Your task to perform on an android device: find snoozed emails in the gmail app Image 0: 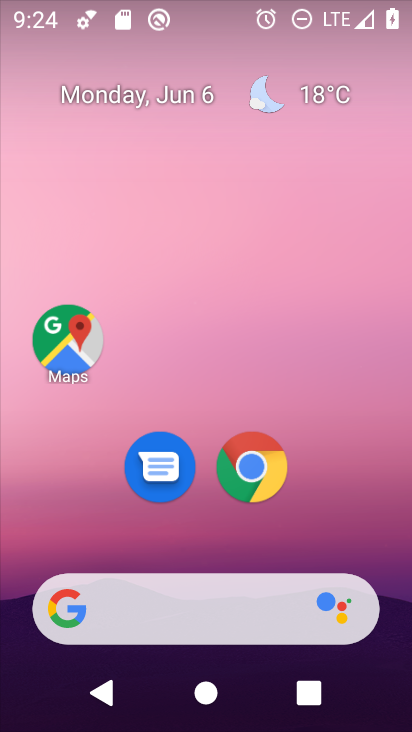
Step 0: drag from (347, 510) to (408, 116)
Your task to perform on an android device: find snoozed emails in the gmail app Image 1: 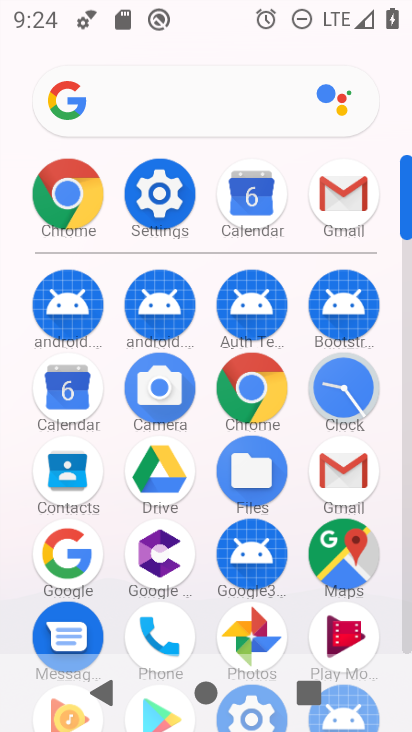
Step 1: click (359, 473)
Your task to perform on an android device: find snoozed emails in the gmail app Image 2: 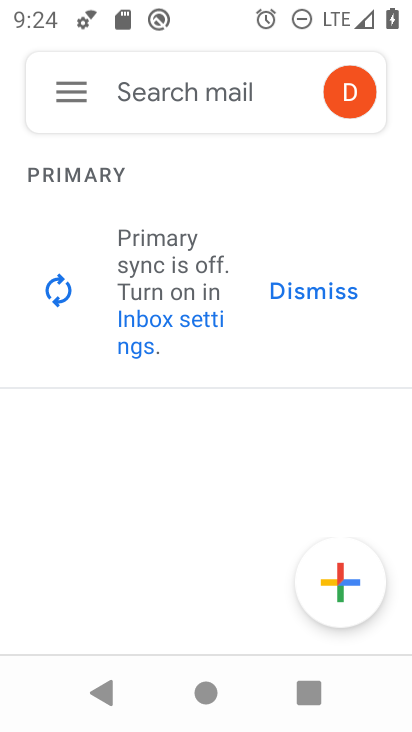
Step 2: click (68, 95)
Your task to perform on an android device: find snoozed emails in the gmail app Image 3: 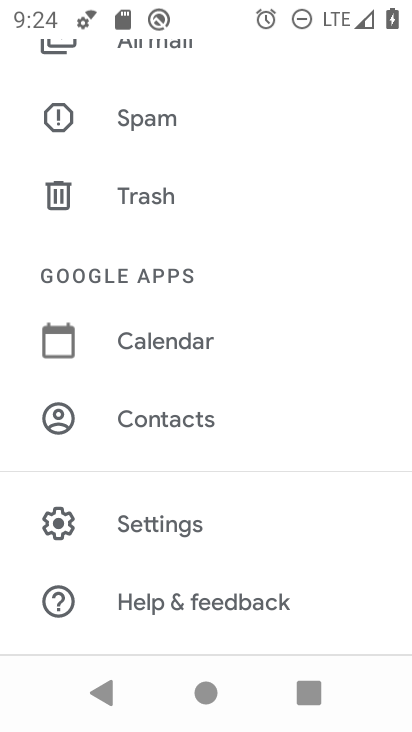
Step 3: drag from (291, 255) to (292, 346)
Your task to perform on an android device: find snoozed emails in the gmail app Image 4: 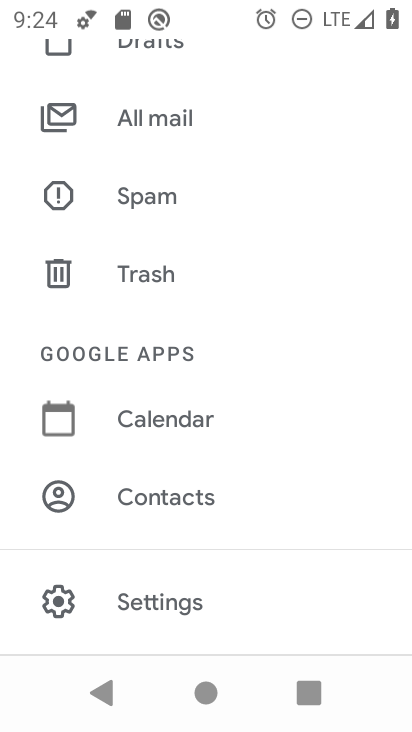
Step 4: drag from (292, 209) to (310, 326)
Your task to perform on an android device: find snoozed emails in the gmail app Image 5: 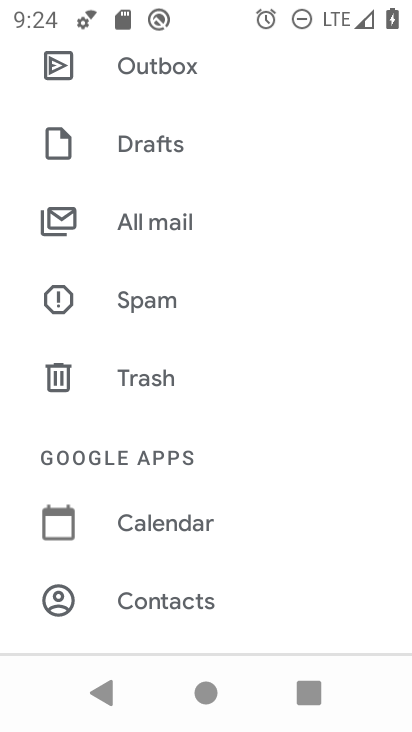
Step 5: drag from (292, 172) to (314, 346)
Your task to perform on an android device: find snoozed emails in the gmail app Image 6: 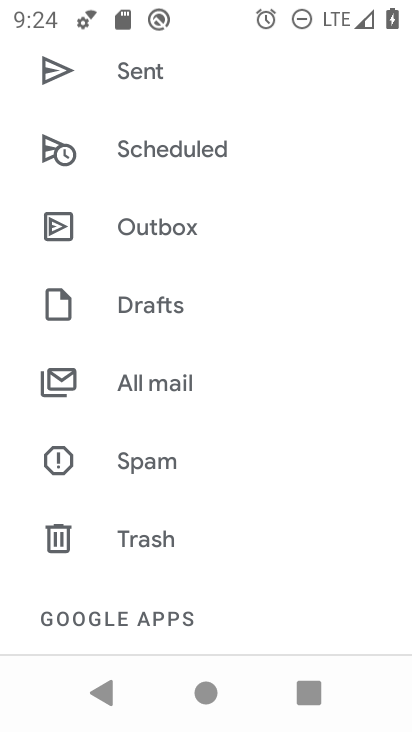
Step 6: drag from (266, 210) to (280, 337)
Your task to perform on an android device: find snoozed emails in the gmail app Image 7: 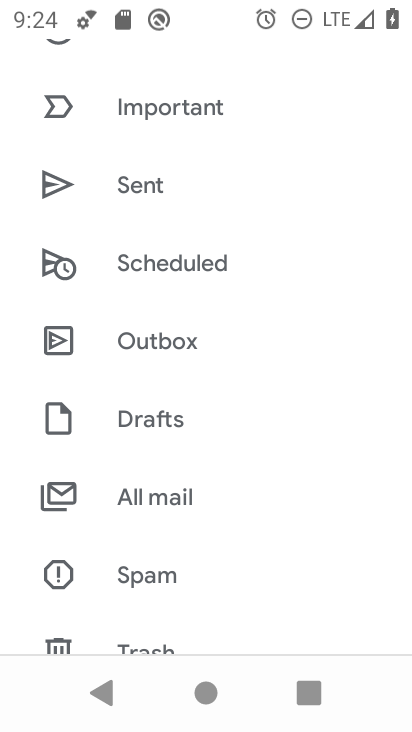
Step 7: drag from (301, 160) to (295, 356)
Your task to perform on an android device: find snoozed emails in the gmail app Image 8: 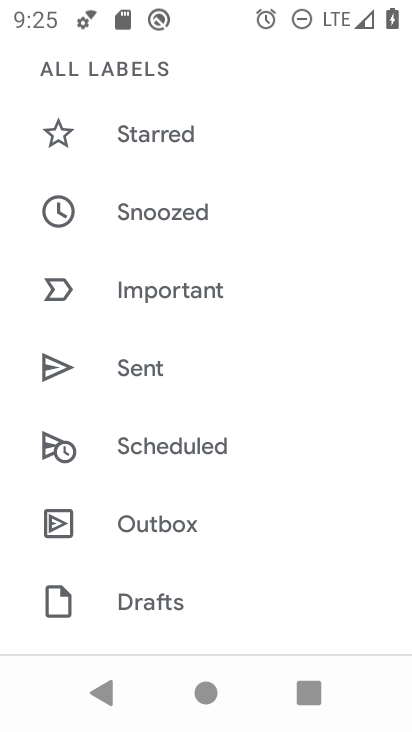
Step 8: drag from (275, 132) to (295, 334)
Your task to perform on an android device: find snoozed emails in the gmail app Image 9: 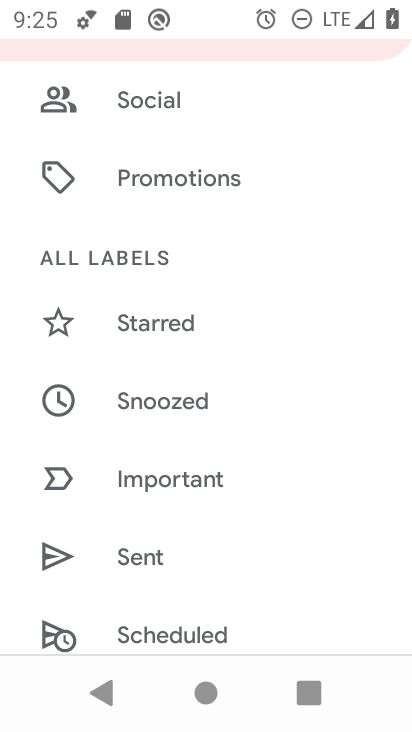
Step 9: click (181, 401)
Your task to perform on an android device: find snoozed emails in the gmail app Image 10: 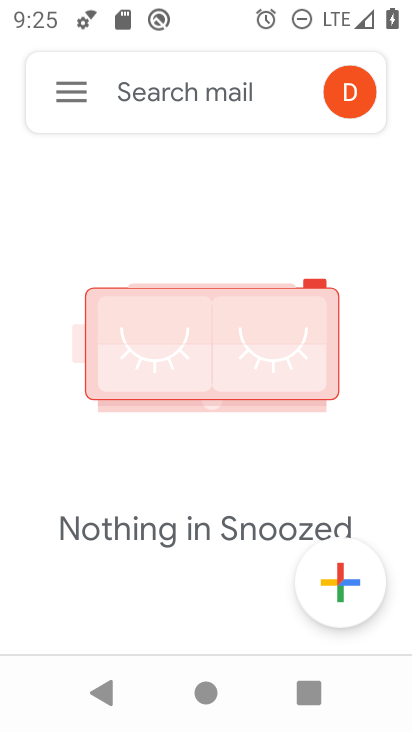
Step 10: task complete